Your task to perform on an android device: turn on translation in the chrome app Image 0: 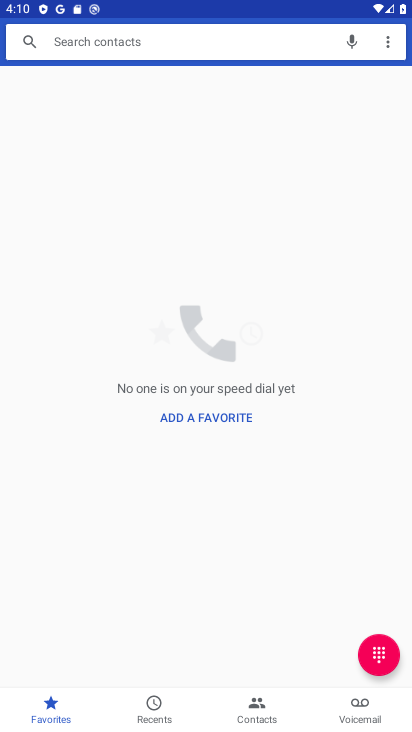
Step 0: press home button
Your task to perform on an android device: turn on translation in the chrome app Image 1: 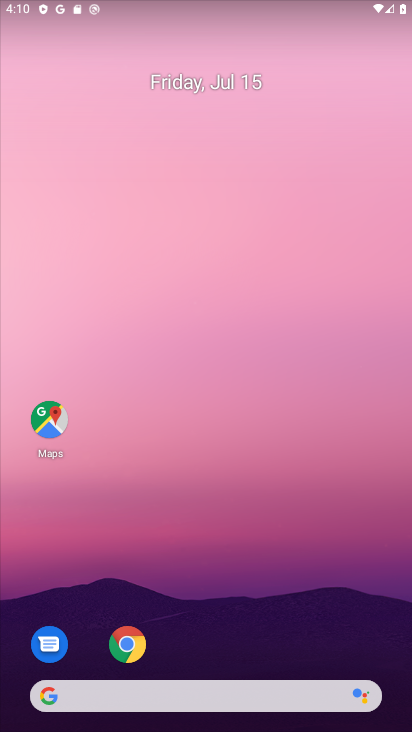
Step 1: drag from (193, 682) to (233, 97)
Your task to perform on an android device: turn on translation in the chrome app Image 2: 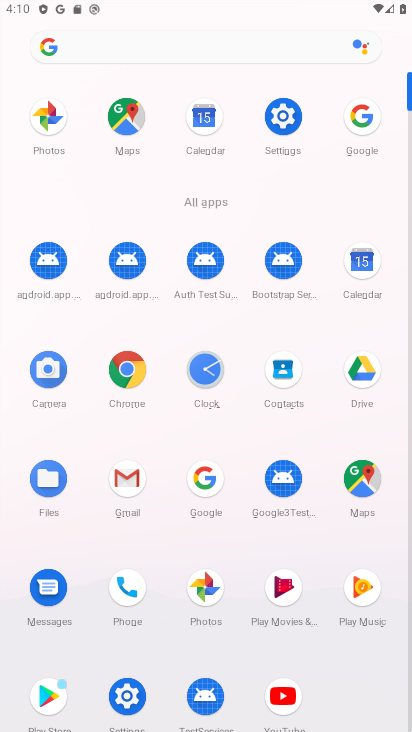
Step 2: click (99, 346)
Your task to perform on an android device: turn on translation in the chrome app Image 3: 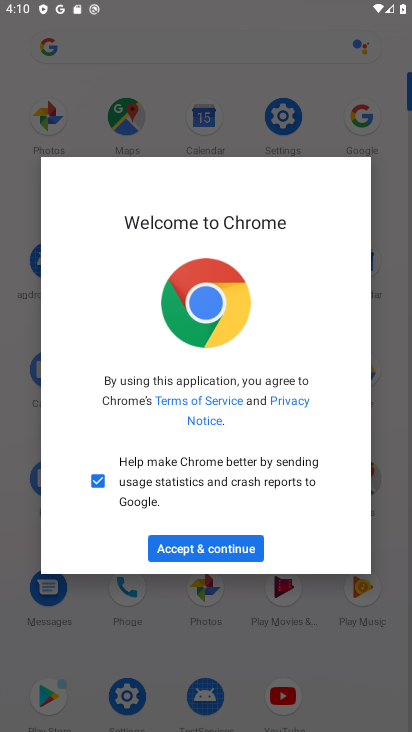
Step 3: click (235, 554)
Your task to perform on an android device: turn on translation in the chrome app Image 4: 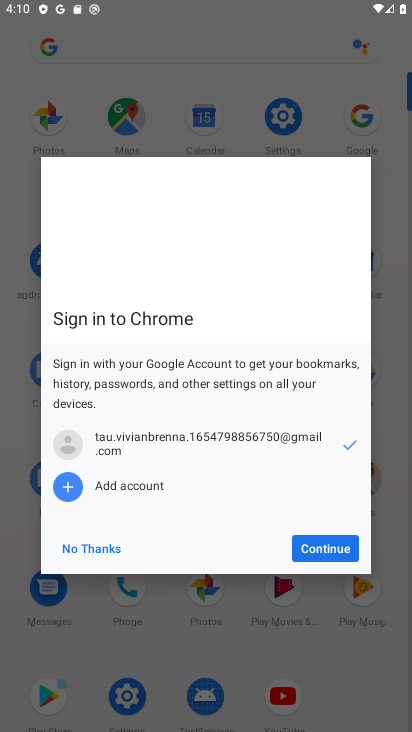
Step 4: click (334, 542)
Your task to perform on an android device: turn on translation in the chrome app Image 5: 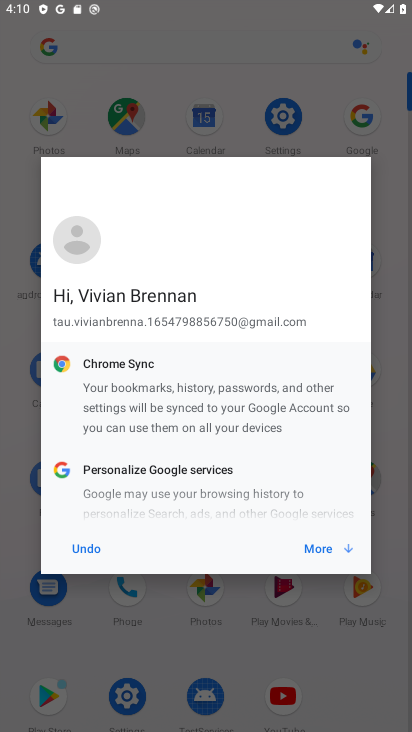
Step 5: click (333, 542)
Your task to perform on an android device: turn on translation in the chrome app Image 6: 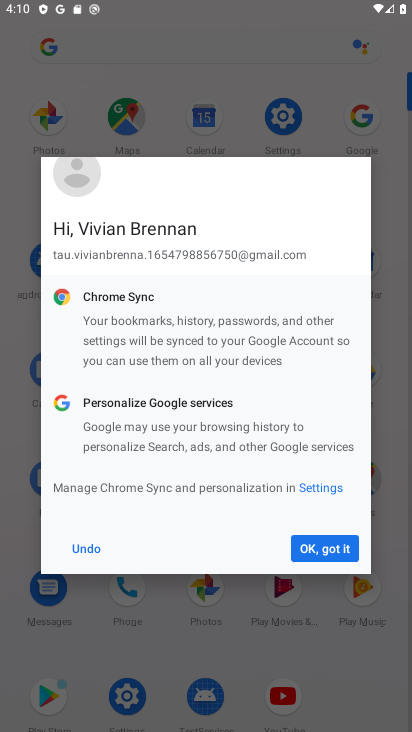
Step 6: click (332, 543)
Your task to perform on an android device: turn on translation in the chrome app Image 7: 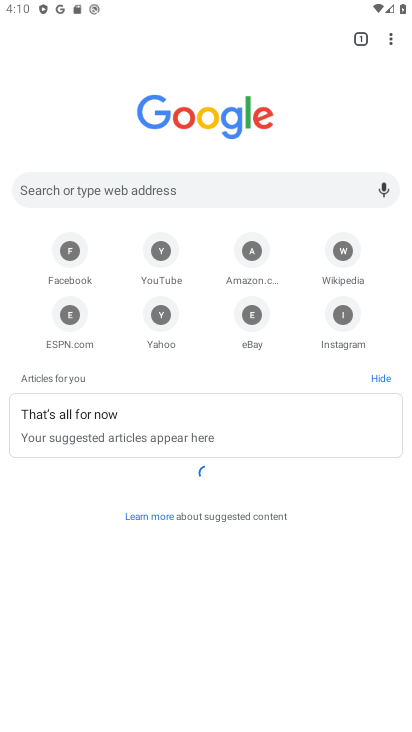
Step 7: click (387, 42)
Your task to perform on an android device: turn on translation in the chrome app Image 8: 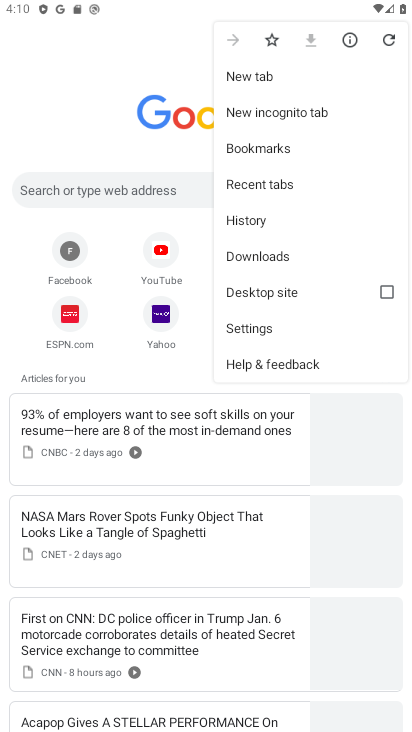
Step 8: click (253, 331)
Your task to perform on an android device: turn on translation in the chrome app Image 9: 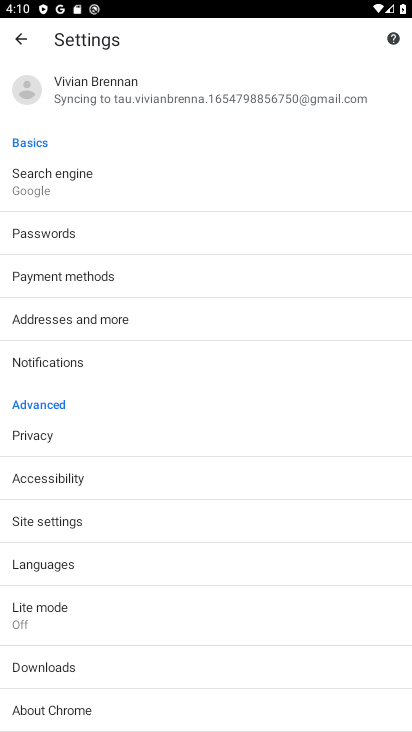
Step 9: click (67, 570)
Your task to perform on an android device: turn on translation in the chrome app Image 10: 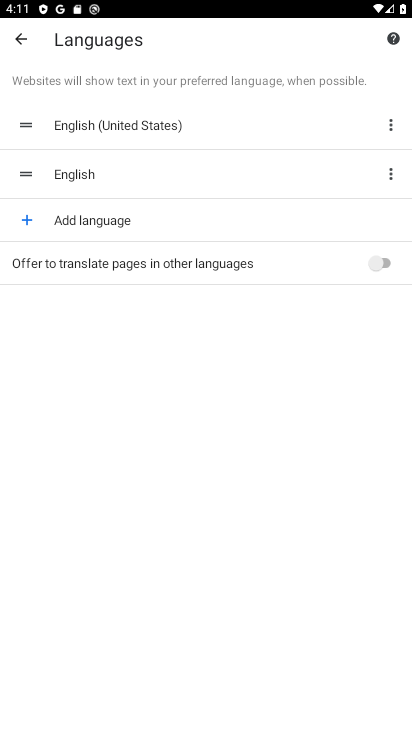
Step 10: click (386, 265)
Your task to perform on an android device: turn on translation in the chrome app Image 11: 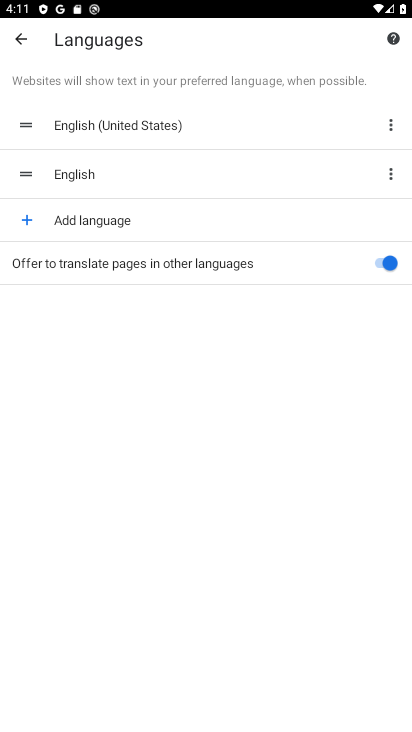
Step 11: task complete